Your task to perform on an android device: Open Youtube and go to the subscriptions tab Image 0: 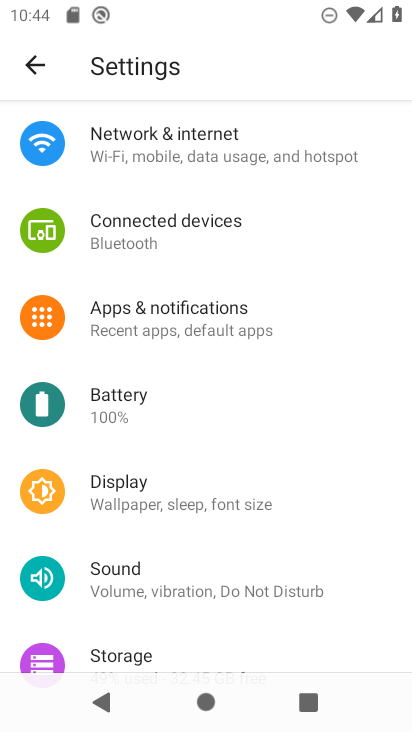
Step 0: press home button
Your task to perform on an android device: Open Youtube and go to the subscriptions tab Image 1: 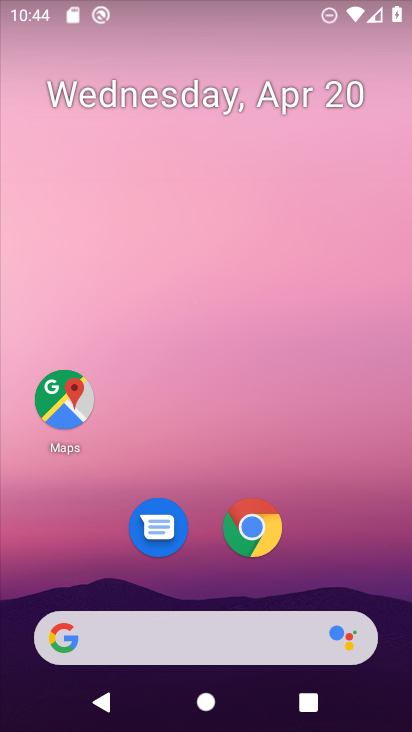
Step 1: drag from (189, 573) to (271, 2)
Your task to perform on an android device: Open Youtube and go to the subscriptions tab Image 2: 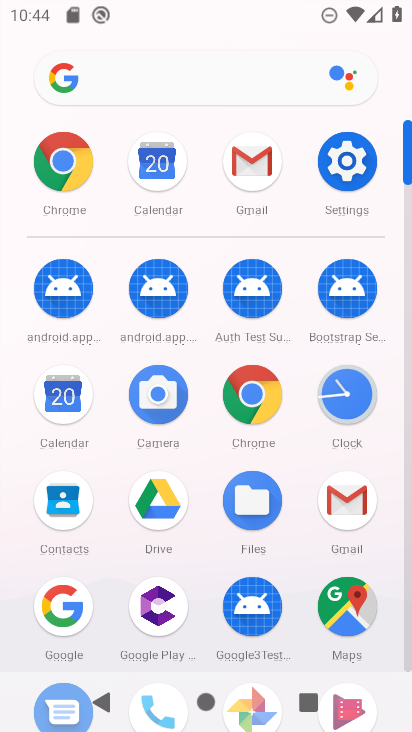
Step 2: drag from (298, 570) to (337, 7)
Your task to perform on an android device: Open Youtube and go to the subscriptions tab Image 3: 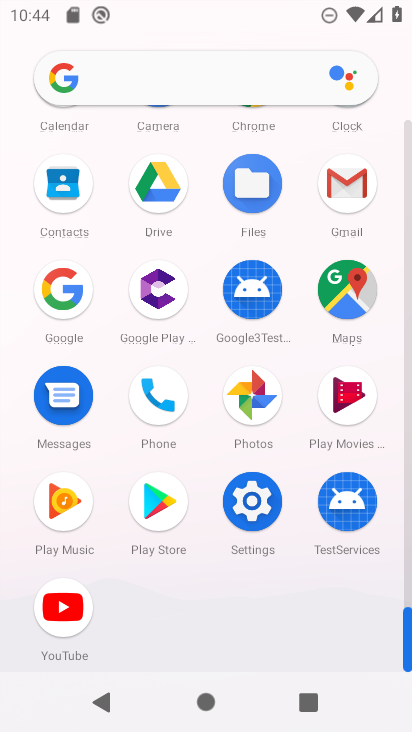
Step 3: click (65, 617)
Your task to perform on an android device: Open Youtube and go to the subscriptions tab Image 4: 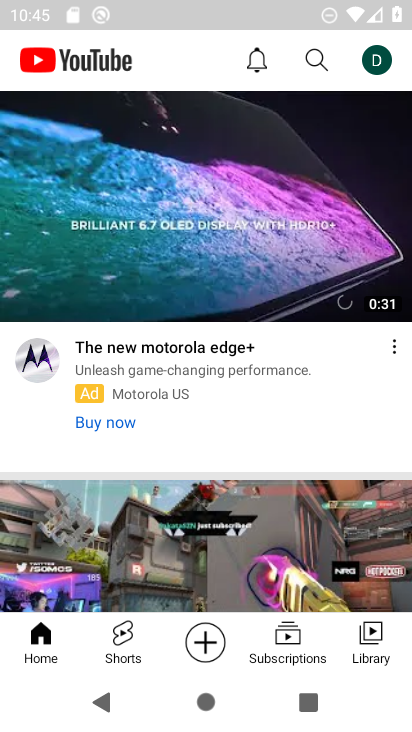
Step 4: click (273, 648)
Your task to perform on an android device: Open Youtube and go to the subscriptions tab Image 5: 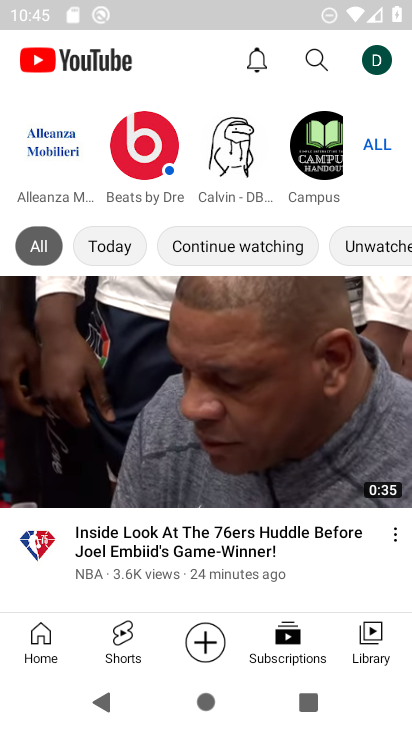
Step 5: task complete